Your task to perform on an android device: Open Youtube and go to "Your channel" Image 0: 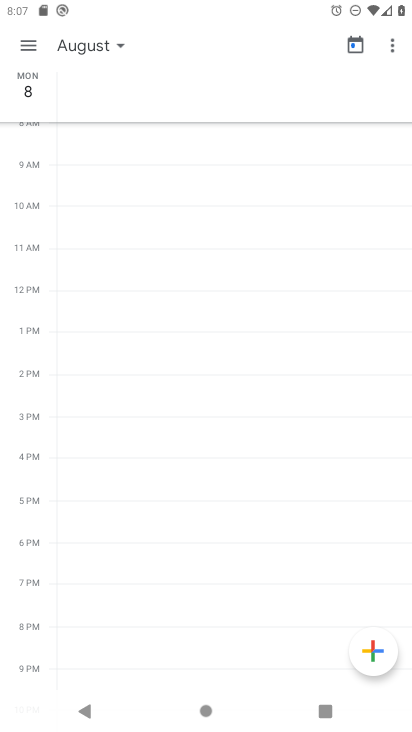
Step 0: press home button
Your task to perform on an android device: Open Youtube and go to "Your channel" Image 1: 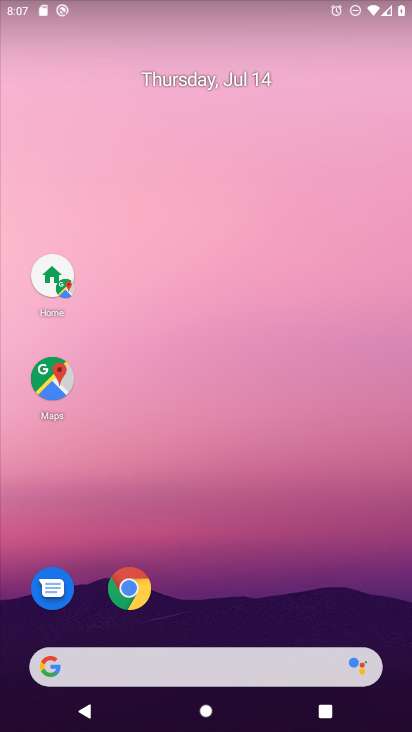
Step 1: drag from (41, 724) to (81, 19)
Your task to perform on an android device: Open Youtube and go to "Your channel" Image 2: 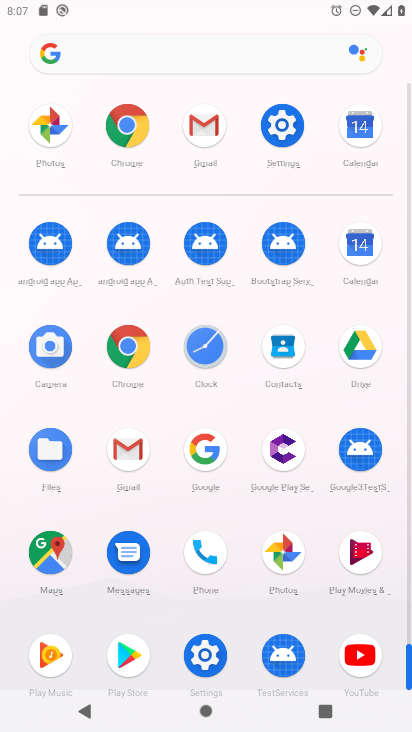
Step 2: click (354, 645)
Your task to perform on an android device: Open Youtube and go to "Your channel" Image 3: 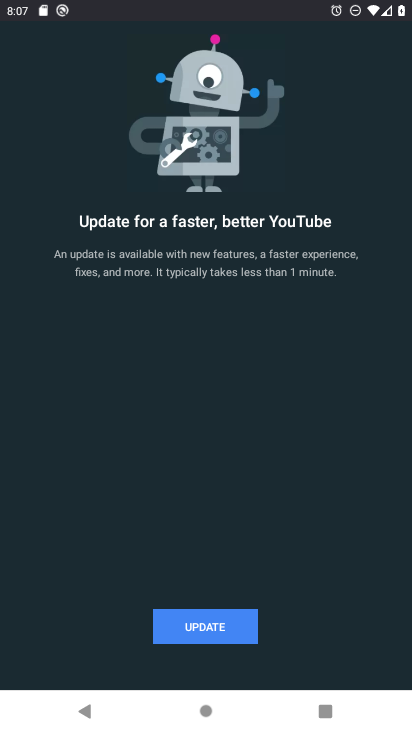
Step 3: click (201, 626)
Your task to perform on an android device: Open Youtube and go to "Your channel" Image 4: 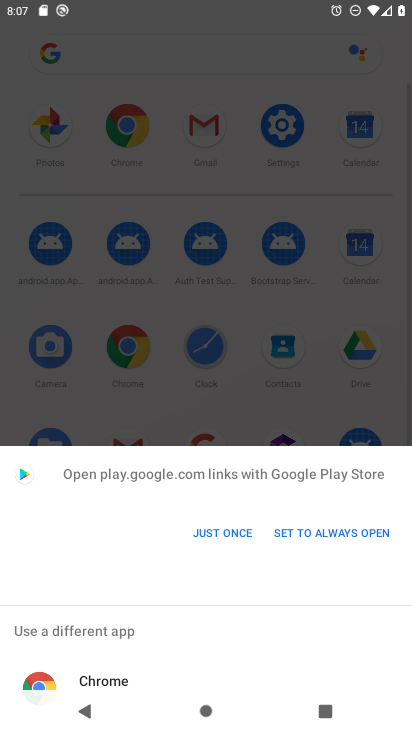
Step 4: click (218, 529)
Your task to perform on an android device: Open Youtube and go to "Your channel" Image 5: 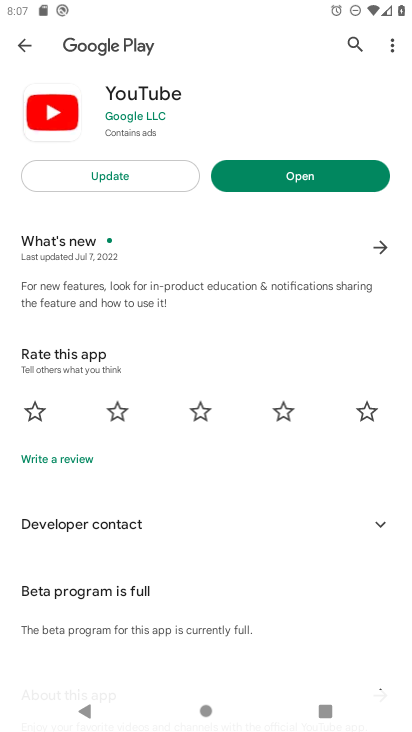
Step 5: click (305, 179)
Your task to perform on an android device: Open Youtube and go to "Your channel" Image 6: 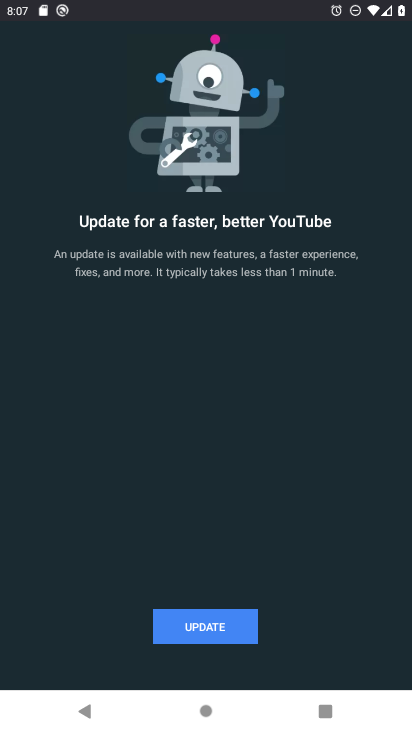
Step 6: task complete